Your task to perform on an android device: change text size in settings app Image 0: 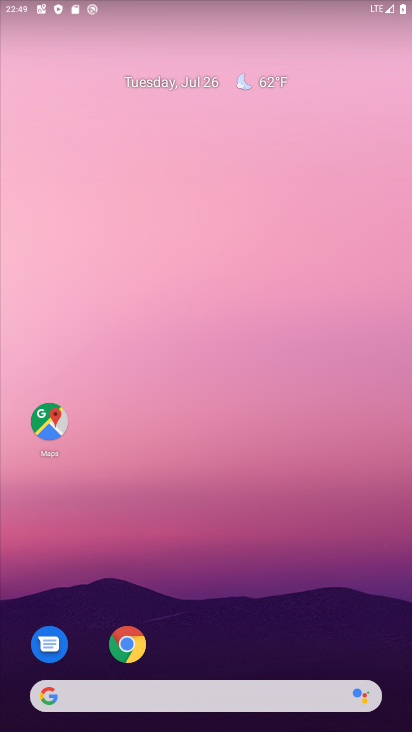
Step 0: drag from (275, 660) to (277, 58)
Your task to perform on an android device: change text size in settings app Image 1: 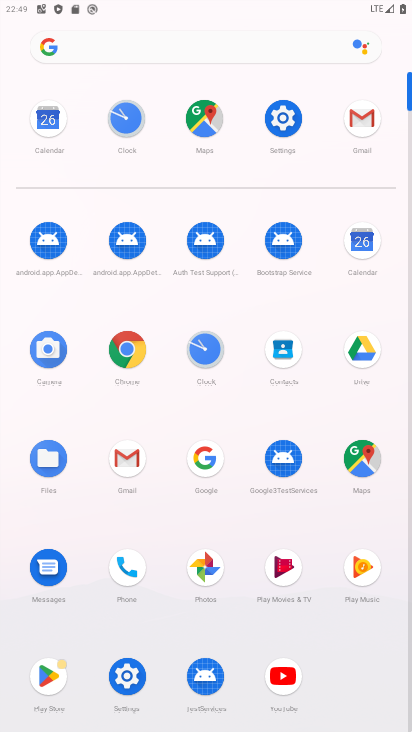
Step 1: click (281, 119)
Your task to perform on an android device: change text size in settings app Image 2: 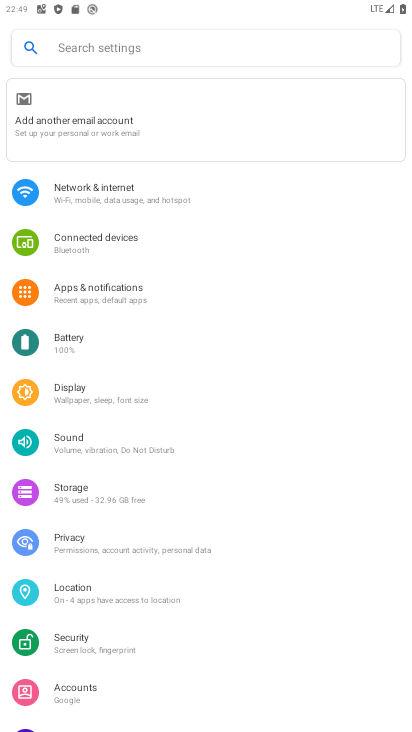
Step 2: drag from (220, 649) to (225, 362)
Your task to perform on an android device: change text size in settings app Image 3: 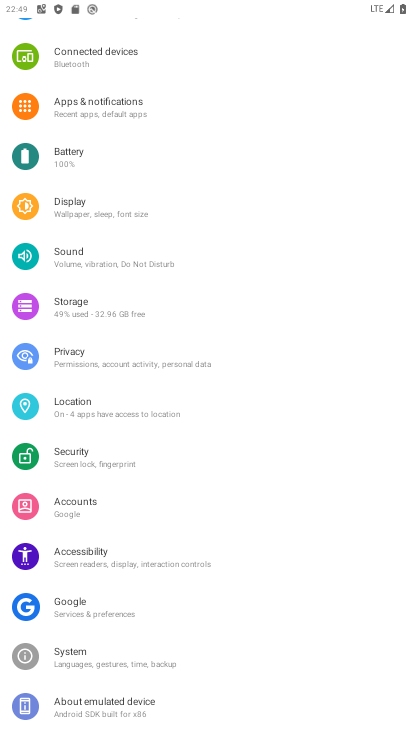
Step 3: click (38, 558)
Your task to perform on an android device: change text size in settings app Image 4: 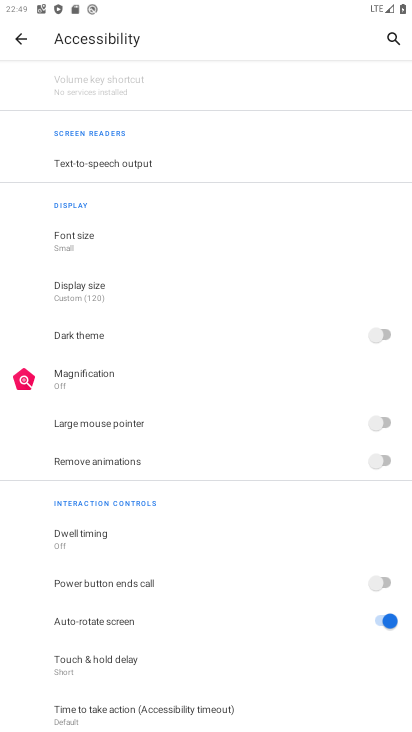
Step 4: click (56, 239)
Your task to perform on an android device: change text size in settings app Image 5: 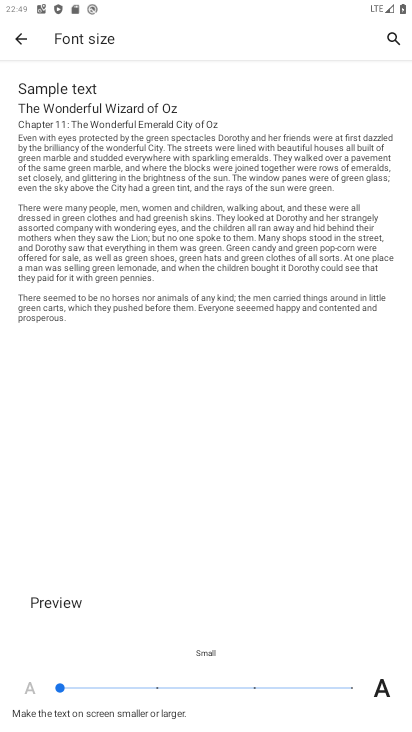
Step 5: click (255, 694)
Your task to perform on an android device: change text size in settings app Image 6: 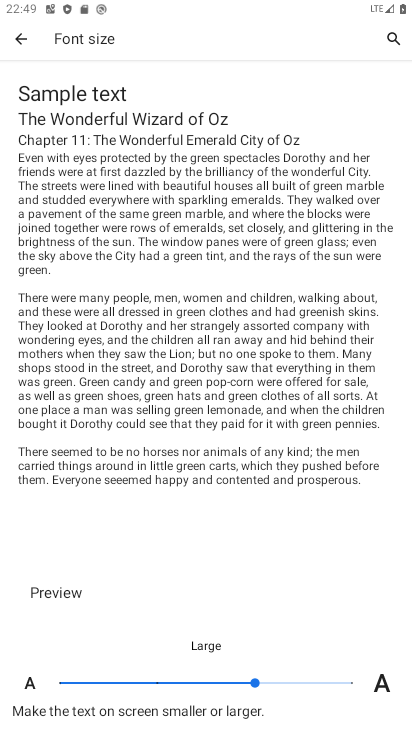
Step 6: task complete